Your task to perform on an android device: Show me the alarms in the clock app Image 0: 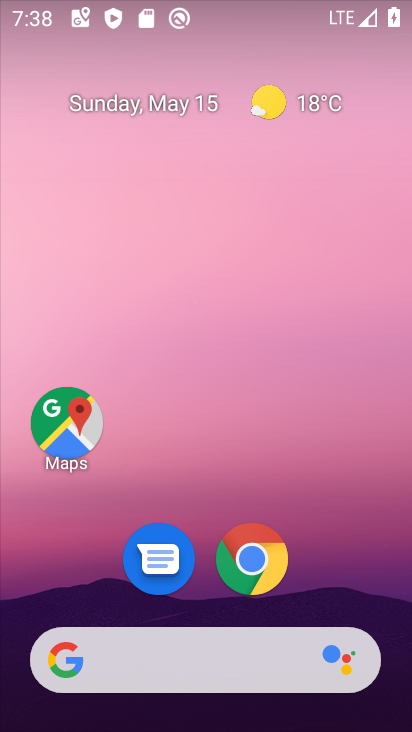
Step 0: drag from (332, 538) to (253, 77)
Your task to perform on an android device: Show me the alarms in the clock app Image 1: 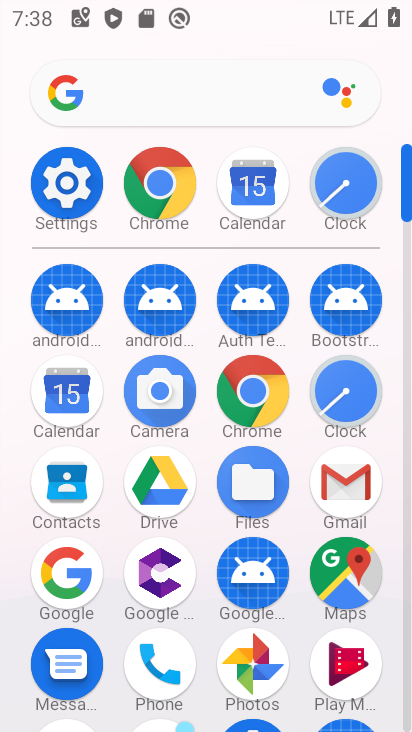
Step 1: click (340, 412)
Your task to perform on an android device: Show me the alarms in the clock app Image 2: 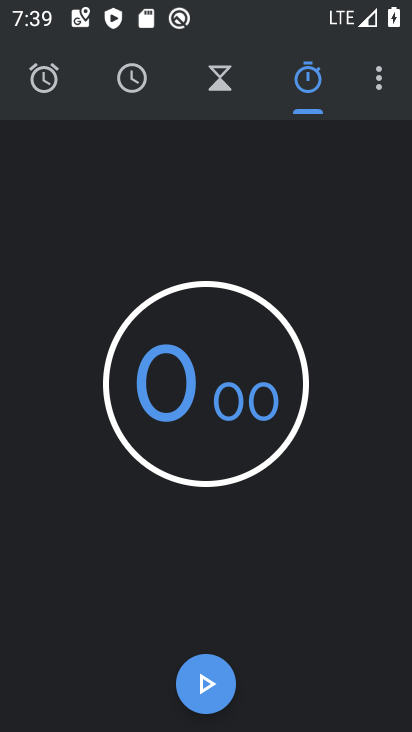
Step 2: click (50, 87)
Your task to perform on an android device: Show me the alarms in the clock app Image 3: 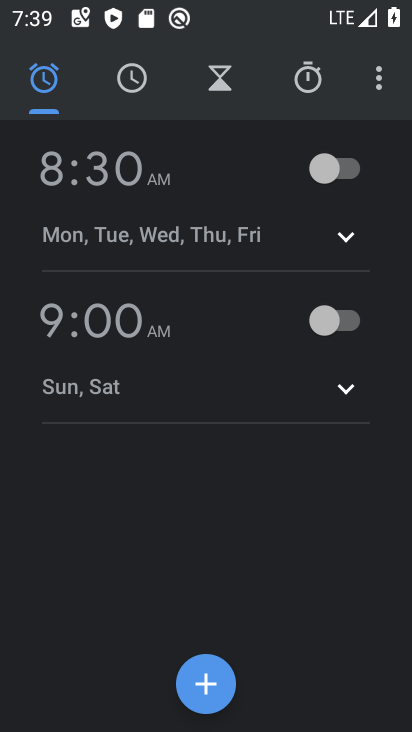
Step 3: task complete